Your task to perform on an android device: Open the stopwatch Image 0: 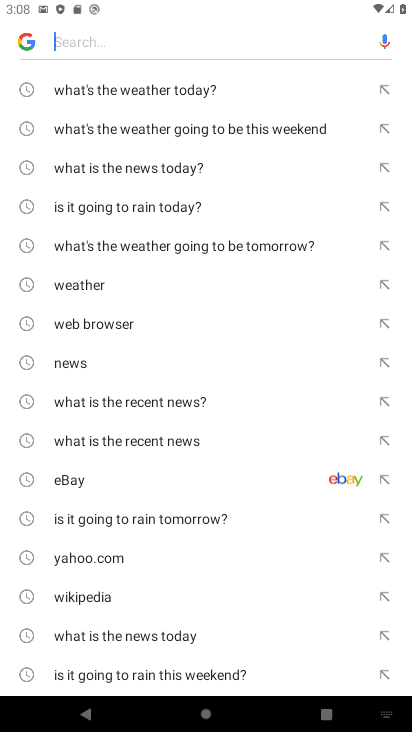
Step 0: press home button
Your task to perform on an android device: Open the stopwatch Image 1: 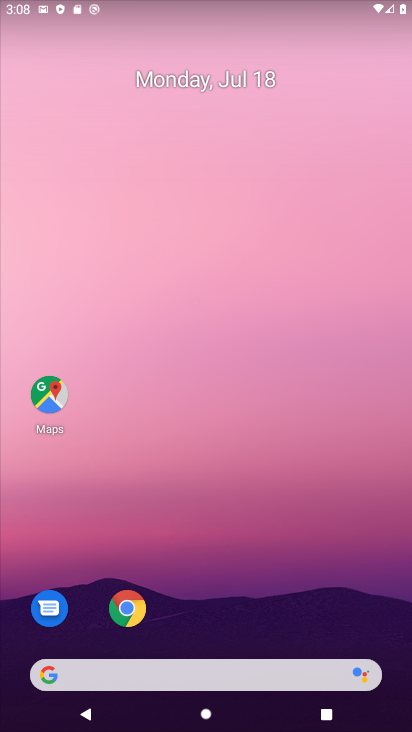
Step 1: drag from (275, 626) to (284, 154)
Your task to perform on an android device: Open the stopwatch Image 2: 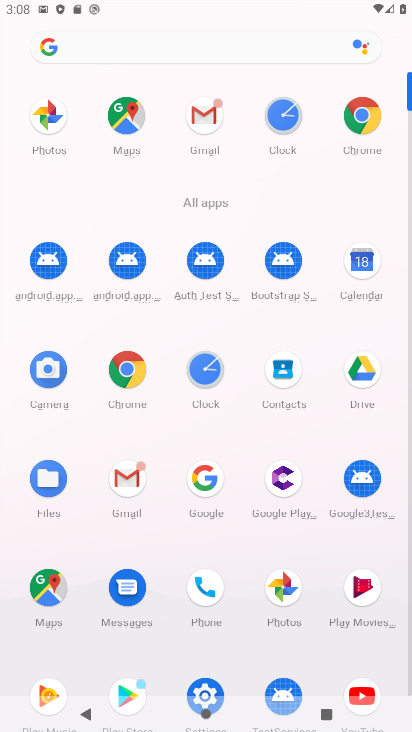
Step 2: click (207, 382)
Your task to perform on an android device: Open the stopwatch Image 3: 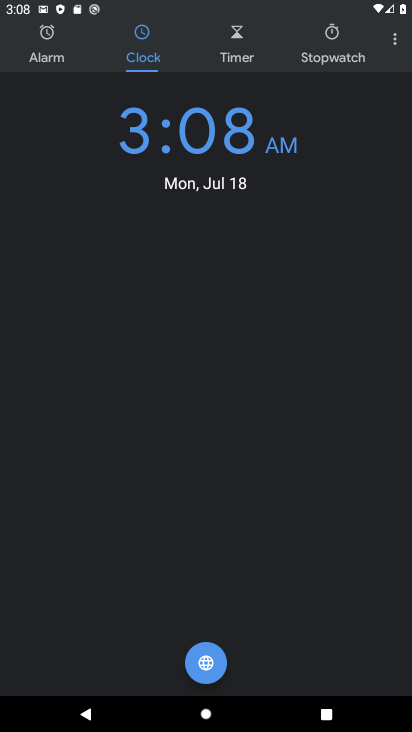
Step 3: click (321, 38)
Your task to perform on an android device: Open the stopwatch Image 4: 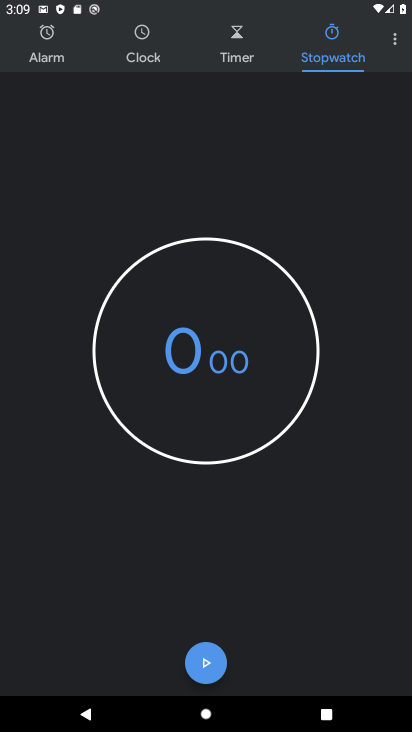
Step 4: task complete